Your task to perform on an android device: Open Google Chrome and click the shortcut for Amazon.com Image 0: 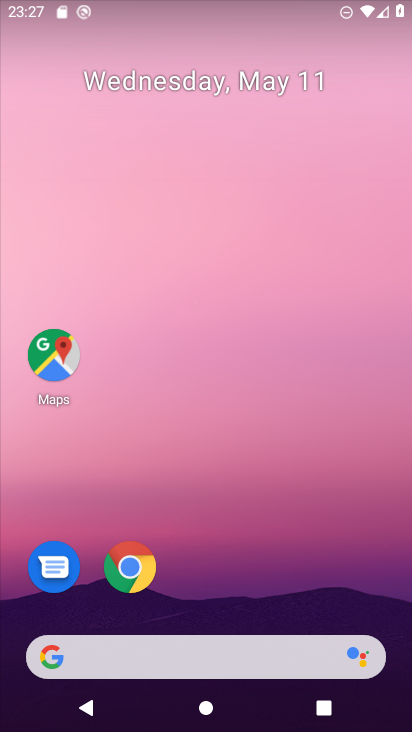
Step 0: click (123, 589)
Your task to perform on an android device: Open Google Chrome and click the shortcut for Amazon.com Image 1: 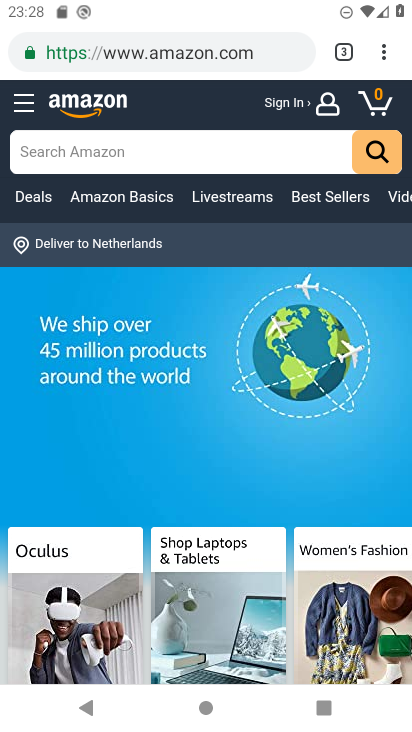
Step 1: click (385, 46)
Your task to perform on an android device: Open Google Chrome and click the shortcut for Amazon.com Image 2: 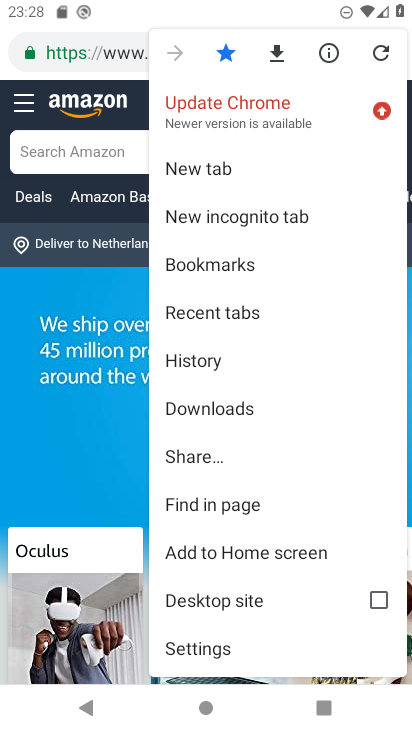
Step 2: click (279, 178)
Your task to perform on an android device: Open Google Chrome and click the shortcut for Amazon.com Image 3: 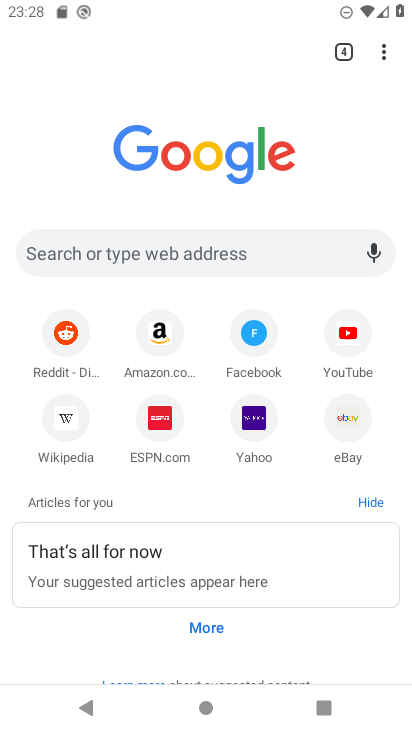
Step 3: click (161, 362)
Your task to perform on an android device: Open Google Chrome and click the shortcut for Amazon.com Image 4: 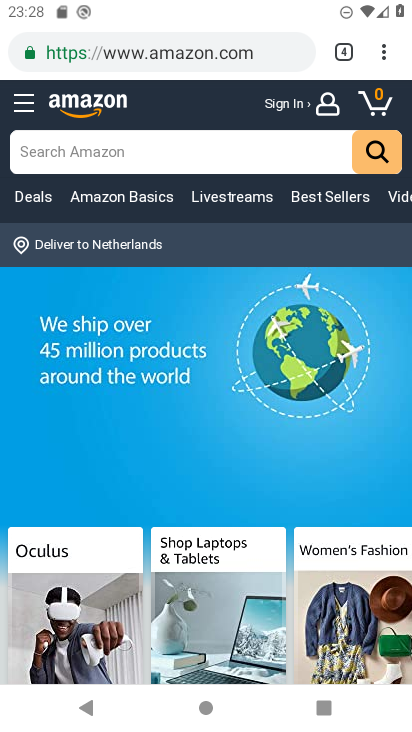
Step 4: task complete